Your task to perform on an android device: Open sound settings Image 0: 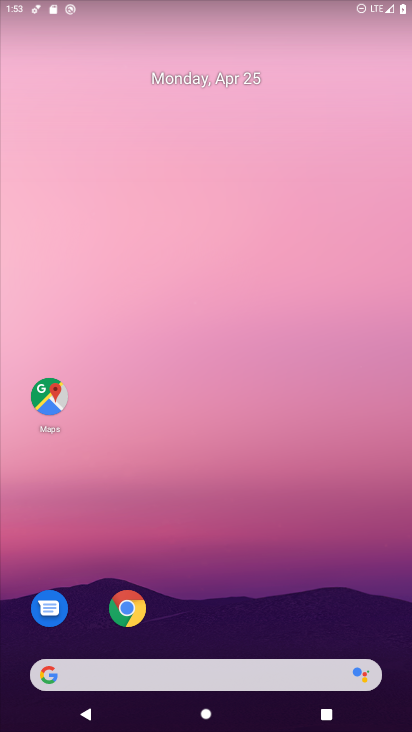
Step 0: drag from (373, 619) to (194, 44)
Your task to perform on an android device: Open sound settings Image 1: 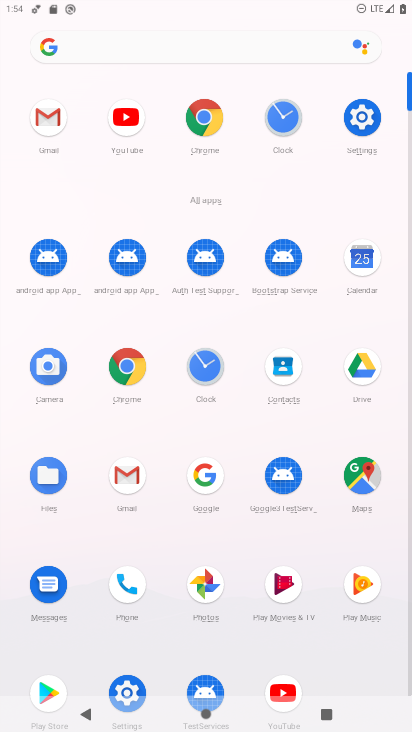
Step 1: click (365, 109)
Your task to perform on an android device: Open sound settings Image 2: 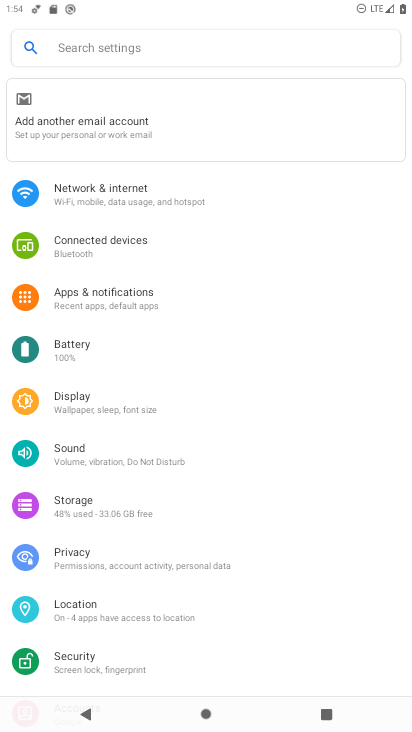
Step 2: click (117, 456)
Your task to perform on an android device: Open sound settings Image 3: 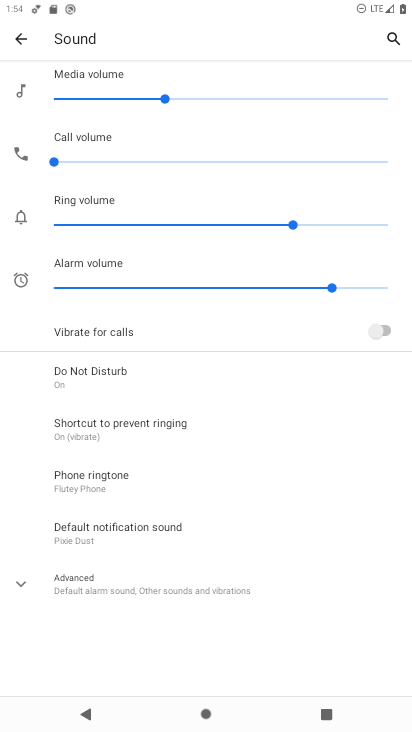
Step 3: task complete